Your task to perform on an android device: turn off data saver in the chrome app Image 0: 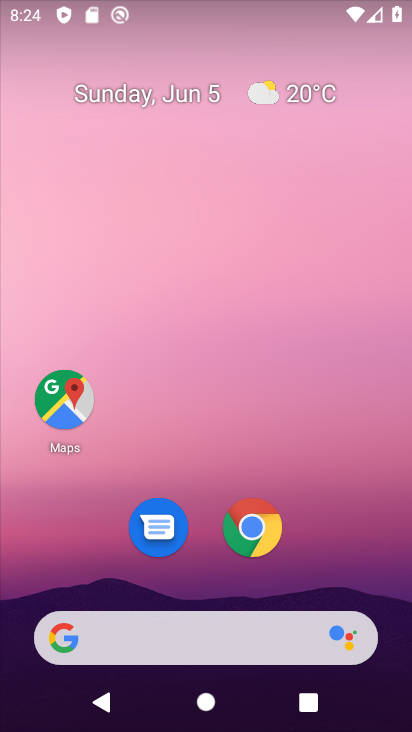
Step 0: drag from (375, 482) to (410, 52)
Your task to perform on an android device: turn off data saver in the chrome app Image 1: 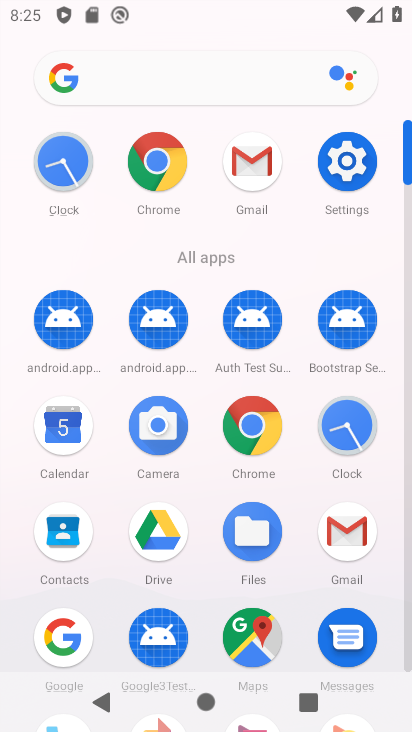
Step 1: click (141, 140)
Your task to perform on an android device: turn off data saver in the chrome app Image 2: 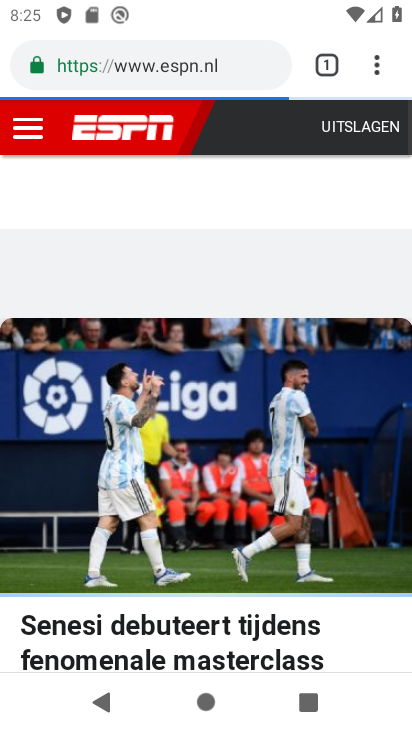
Step 2: drag from (370, 72) to (147, 573)
Your task to perform on an android device: turn off data saver in the chrome app Image 3: 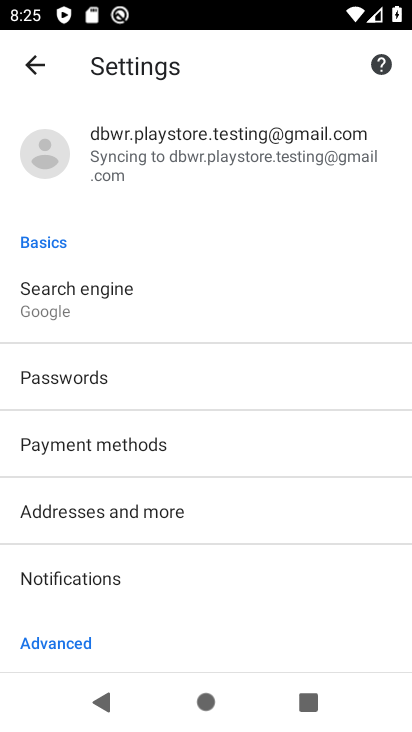
Step 3: drag from (87, 637) to (182, 197)
Your task to perform on an android device: turn off data saver in the chrome app Image 4: 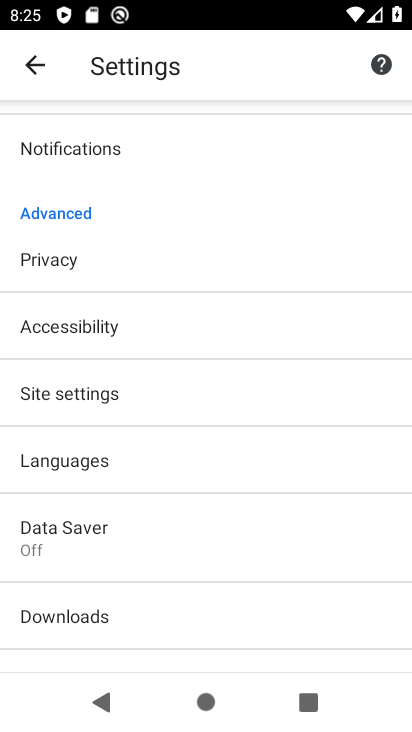
Step 4: click (120, 533)
Your task to perform on an android device: turn off data saver in the chrome app Image 5: 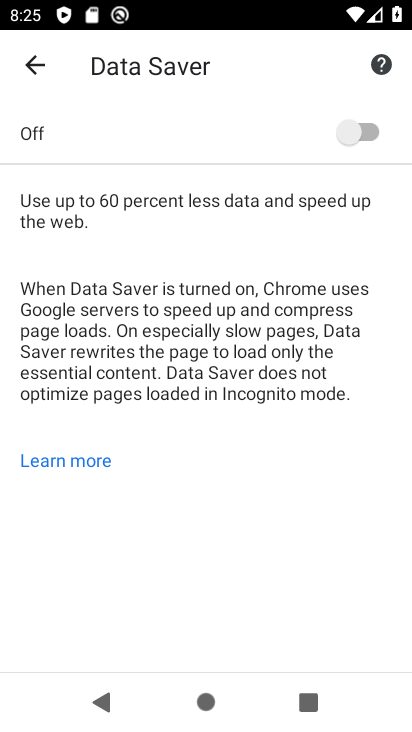
Step 5: task complete